Your task to perform on an android device: delete browsing data in the chrome app Image 0: 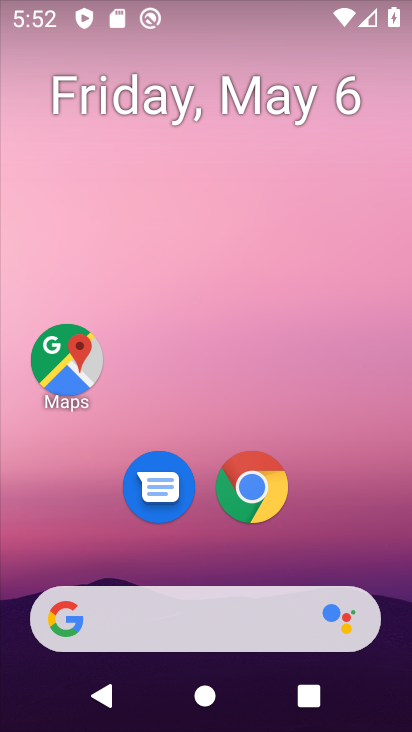
Step 0: click (262, 479)
Your task to perform on an android device: delete browsing data in the chrome app Image 1: 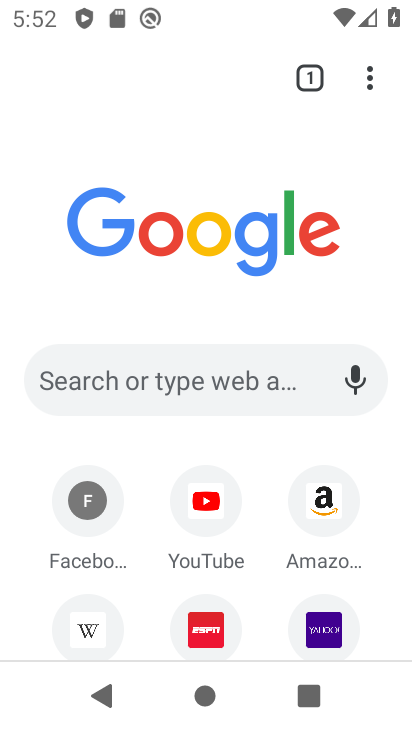
Step 1: click (372, 82)
Your task to perform on an android device: delete browsing data in the chrome app Image 2: 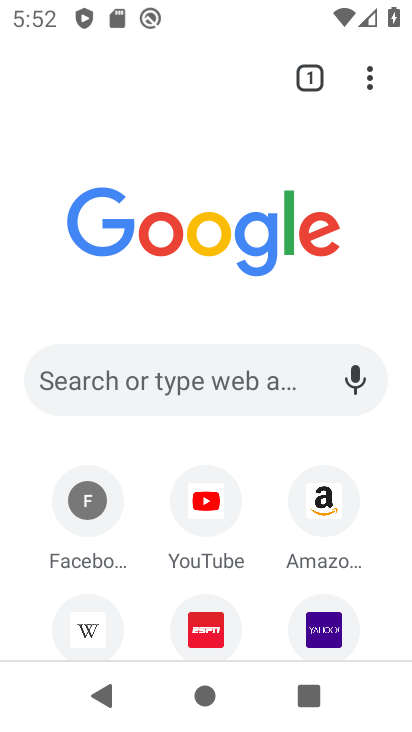
Step 2: drag from (372, 82) to (170, 544)
Your task to perform on an android device: delete browsing data in the chrome app Image 3: 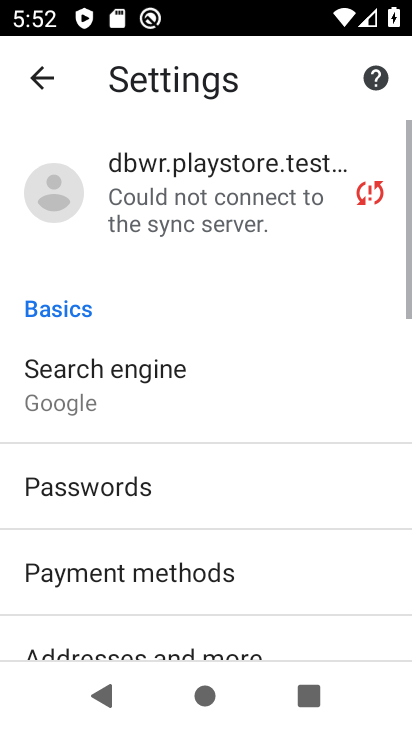
Step 3: drag from (275, 631) to (313, 172)
Your task to perform on an android device: delete browsing data in the chrome app Image 4: 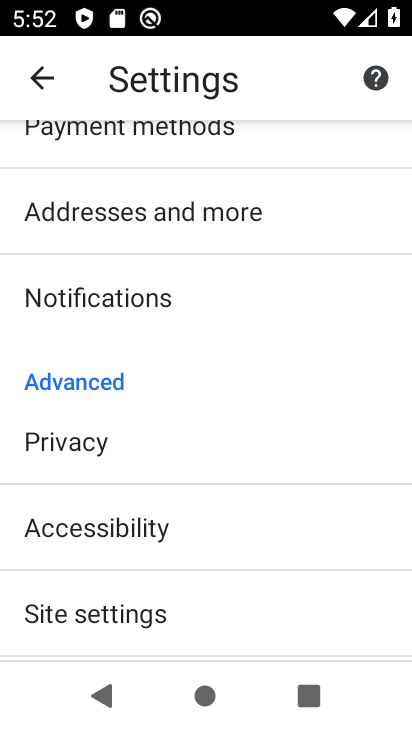
Step 4: click (43, 428)
Your task to perform on an android device: delete browsing data in the chrome app Image 5: 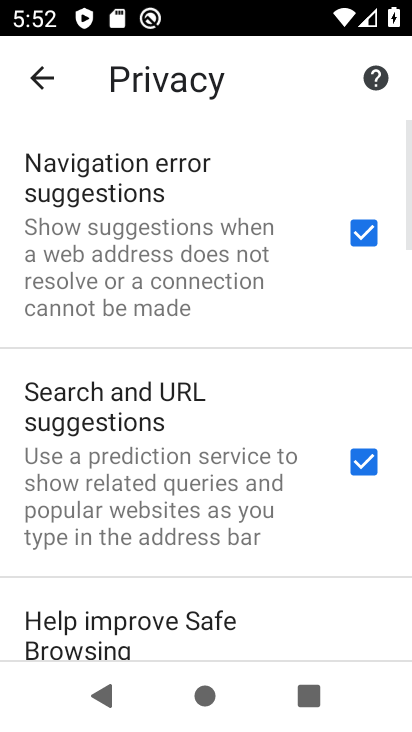
Step 5: drag from (297, 610) to (328, 157)
Your task to perform on an android device: delete browsing data in the chrome app Image 6: 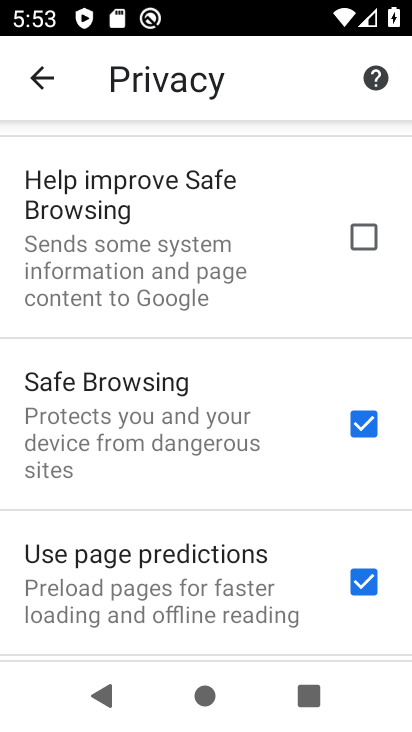
Step 6: drag from (278, 604) to (308, 147)
Your task to perform on an android device: delete browsing data in the chrome app Image 7: 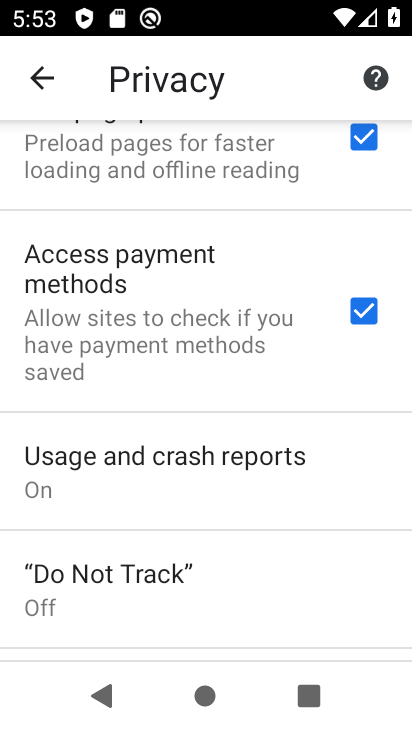
Step 7: drag from (221, 600) to (275, 124)
Your task to perform on an android device: delete browsing data in the chrome app Image 8: 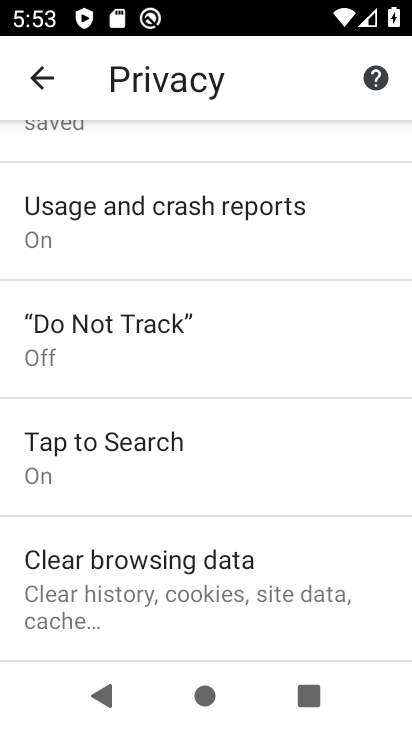
Step 8: click (153, 563)
Your task to perform on an android device: delete browsing data in the chrome app Image 9: 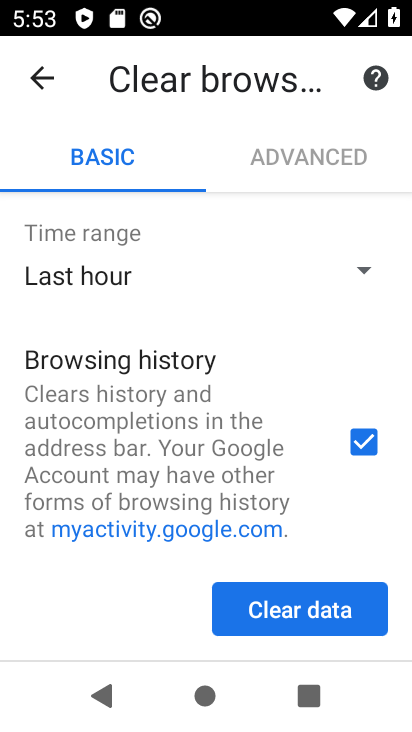
Step 9: drag from (109, 561) to (165, 256)
Your task to perform on an android device: delete browsing data in the chrome app Image 10: 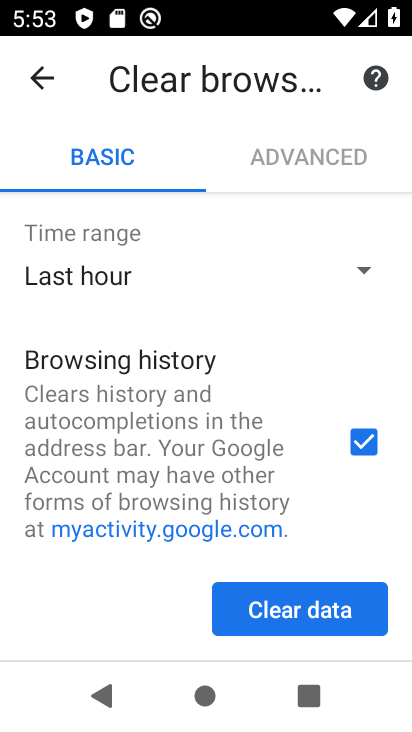
Step 10: click (304, 606)
Your task to perform on an android device: delete browsing data in the chrome app Image 11: 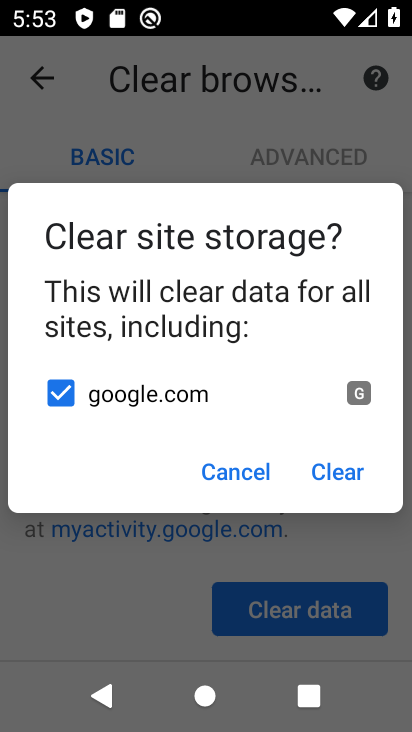
Step 11: click (341, 467)
Your task to perform on an android device: delete browsing data in the chrome app Image 12: 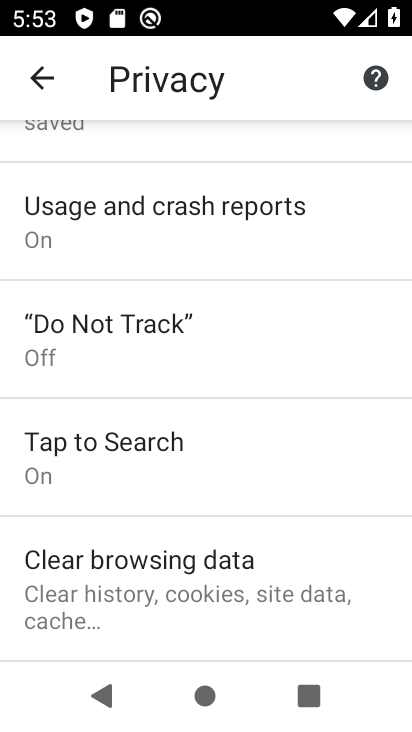
Step 12: task complete